Your task to perform on an android device: move an email to a new category in the gmail app Image 0: 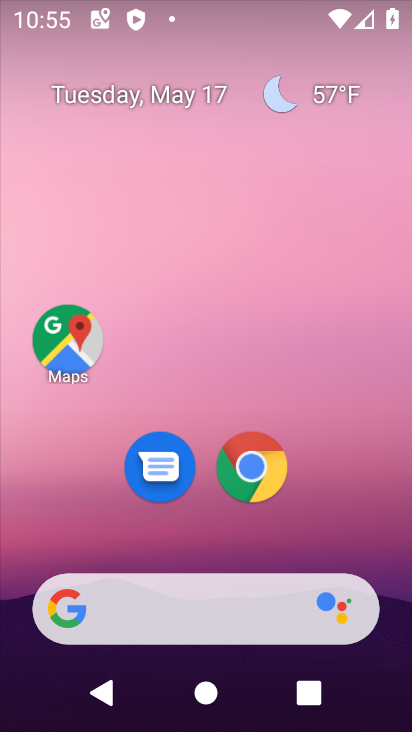
Step 0: drag from (188, 570) to (218, 160)
Your task to perform on an android device: move an email to a new category in the gmail app Image 1: 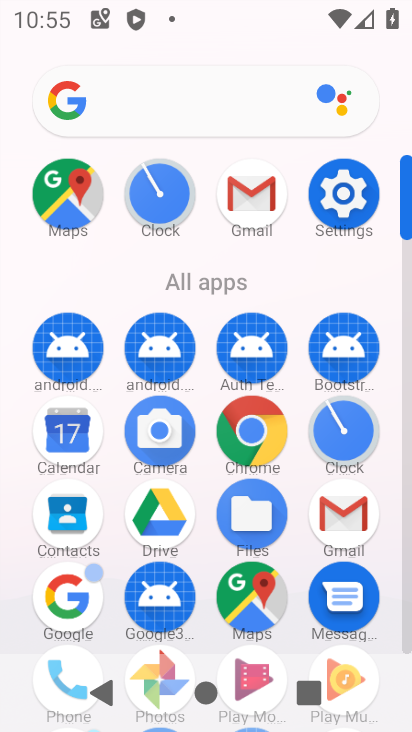
Step 1: click (248, 198)
Your task to perform on an android device: move an email to a new category in the gmail app Image 2: 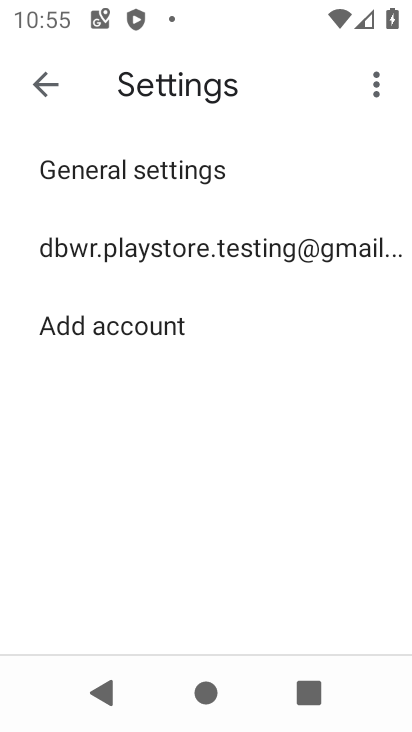
Step 2: click (39, 85)
Your task to perform on an android device: move an email to a new category in the gmail app Image 3: 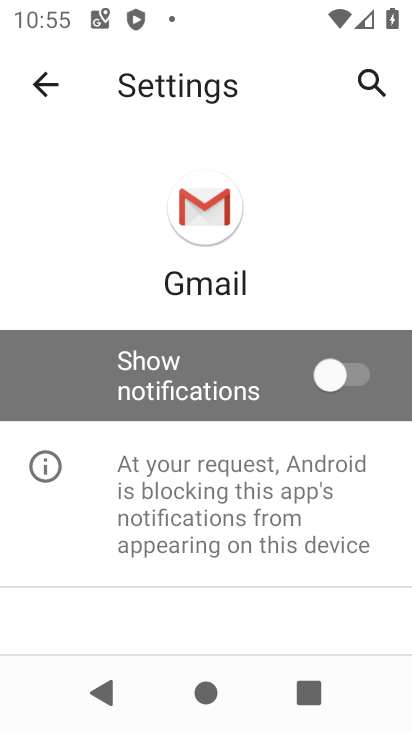
Step 3: click (39, 85)
Your task to perform on an android device: move an email to a new category in the gmail app Image 4: 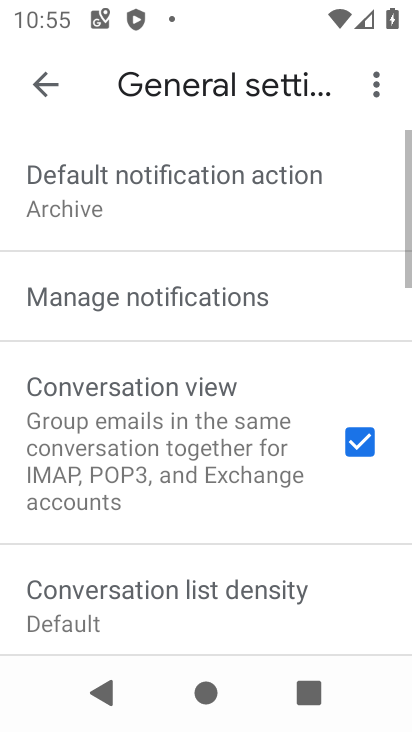
Step 4: click (39, 85)
Your task to perform on an android device: move an email to a new category in the gmail app Image 5: 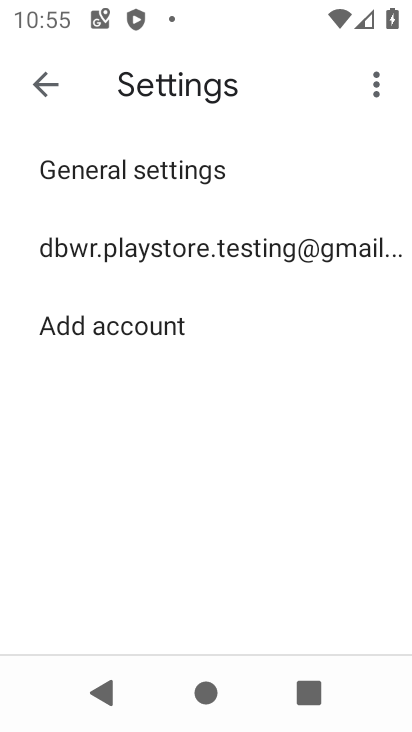
Step 5: click (39, 85)
Your task to perform on an android device: move an email to a new category in the gmail app Image 6: 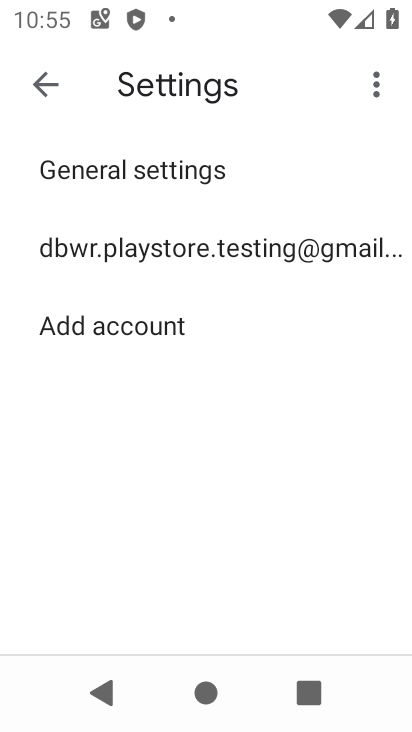
Step 6: click (39, 85)
Your task to perform on an android device: move an email to a new category in the gmail app Image 7: 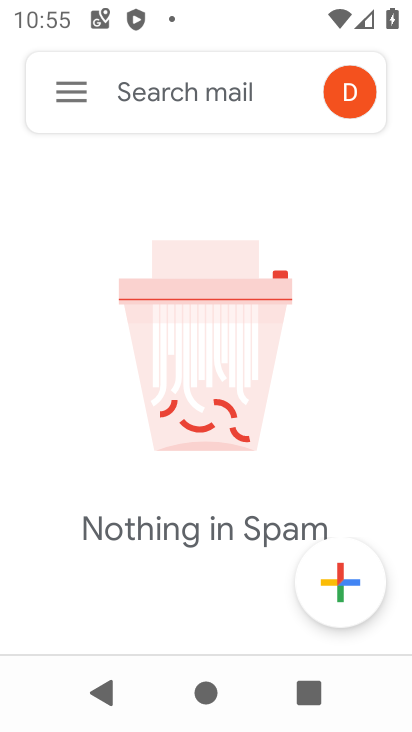
Step 7: click (58, 85)
Your task to perform on an android device: move an email to a new category in the gmail app Image 8: 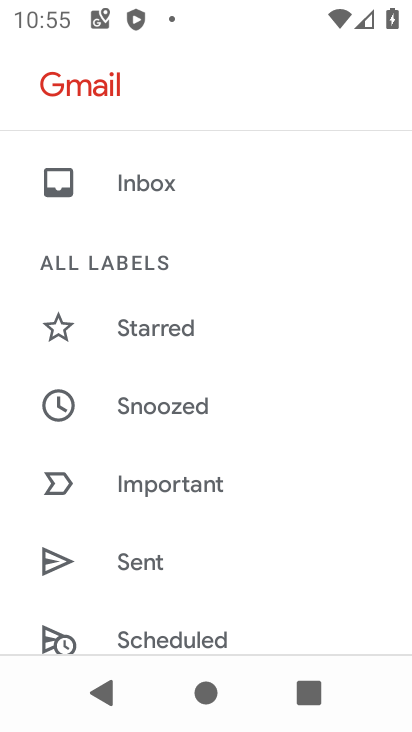
Step 8: click (133, 187)
Your task to perform on an android device: move an email to a new category in the gmail app Image 9: 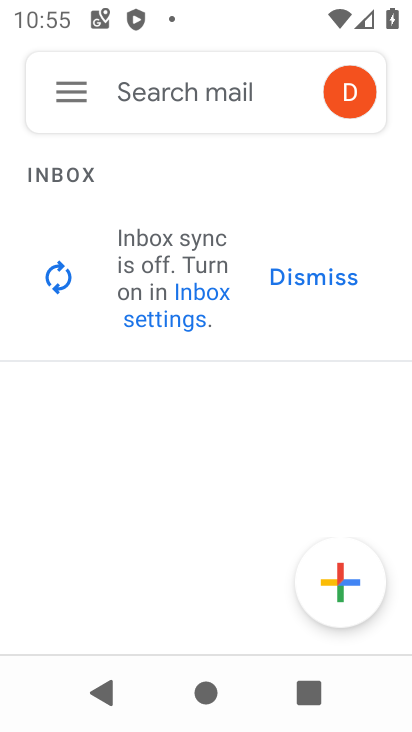
Step 9: task complete